Your task to perform on an android device: toggle javascript in the chrome app Image 0: 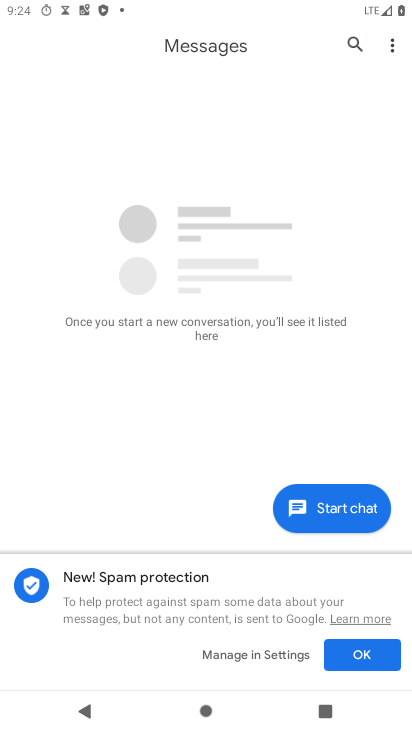
Step 0: press back button
Your task to perform on an android device: toggle javascript in the chrome app Image 1: 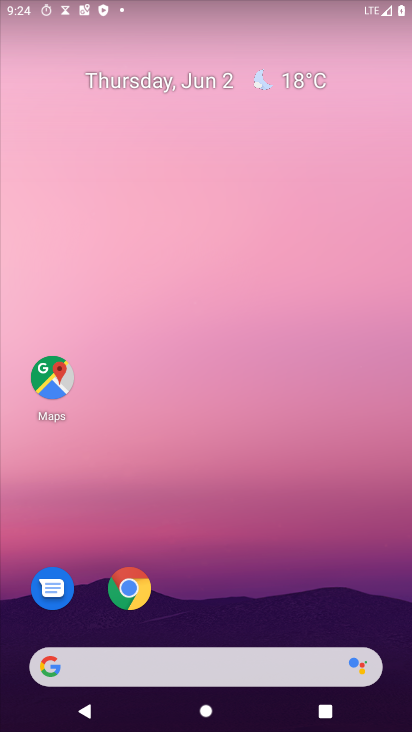
Step 1: click (126, 591)
Your task to perform on an android device: toggle javascript in the chrome app Image 2: 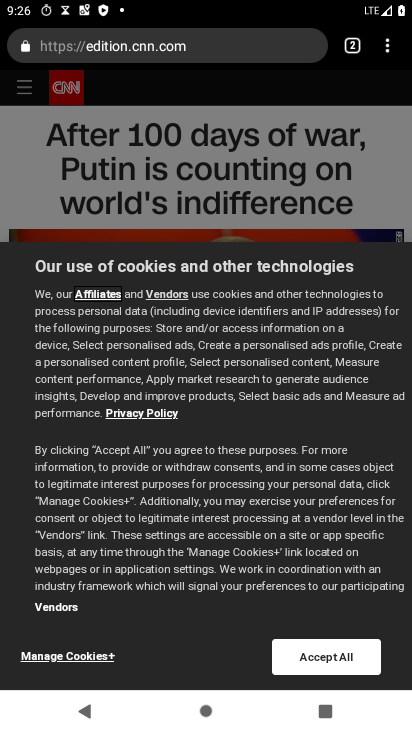
Step 2: drag from (386, 37) to (240, 510)
Your task to perform on an android device: toggle javascript in the chrome app Image 3: 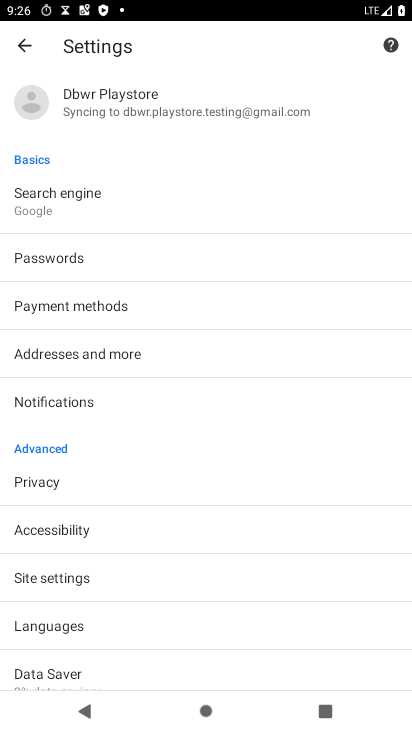
Step 3: click (87, 579)
Your task to perform on an android device: toggle javascript in the chrome app Image 4: 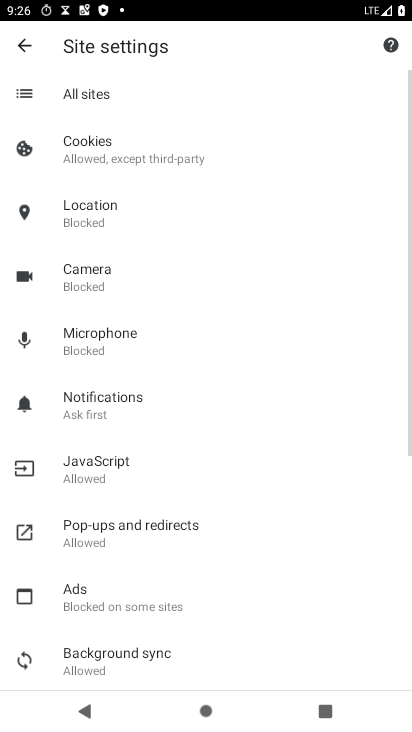
Step 4: click (94, 470)
Your task to perform on an android device: toggle javascript in the chrome app Image 5: 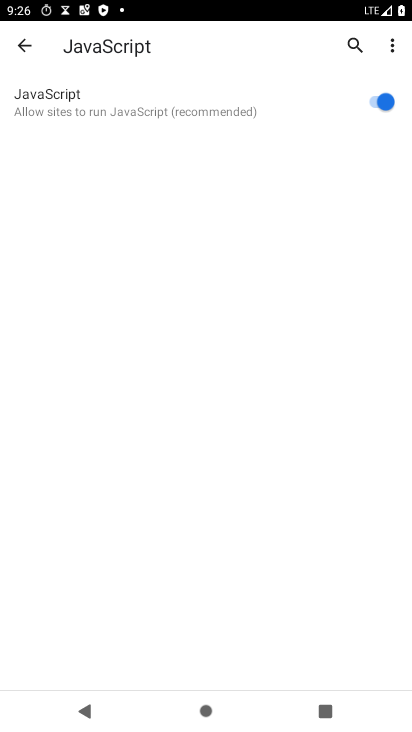
Step 5: click (384, 104)
Your task to perform on an android device: toggle javascript in the chrome app Image 6: 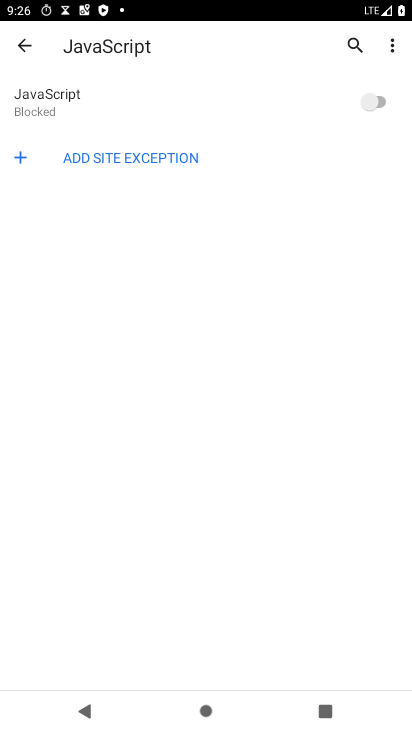
Step 6: task complete